Your task to perform on an android device: Open accessibility settings Image 0: 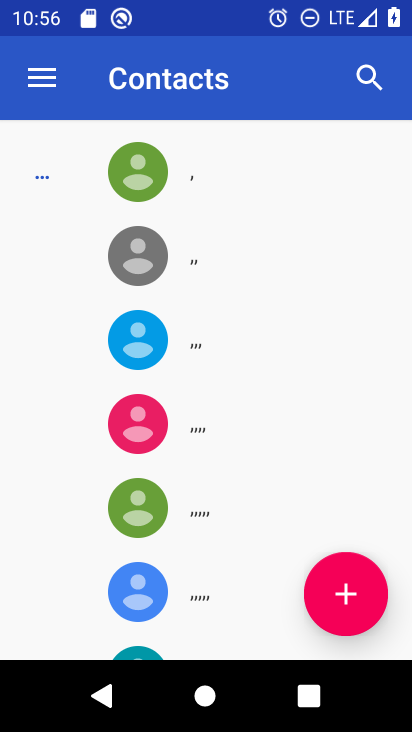
Step 0: press home button
Your task to perform on an android device: Open accessibility settings Image 1: 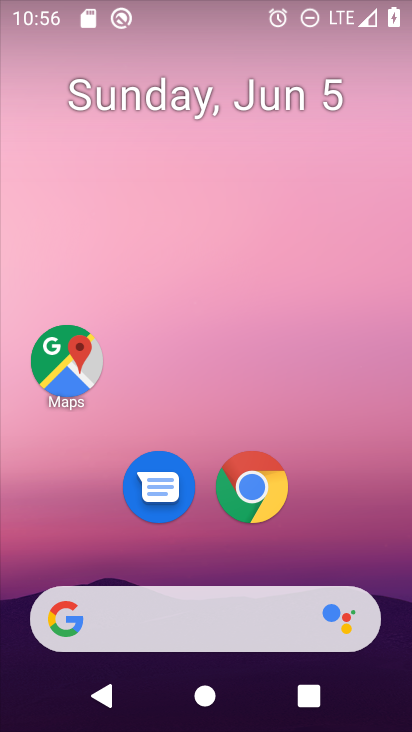
Step 1: drag from (198, 486) to (208, 199)
Your task to perform on an android device: Open accessibility settings Image 2: 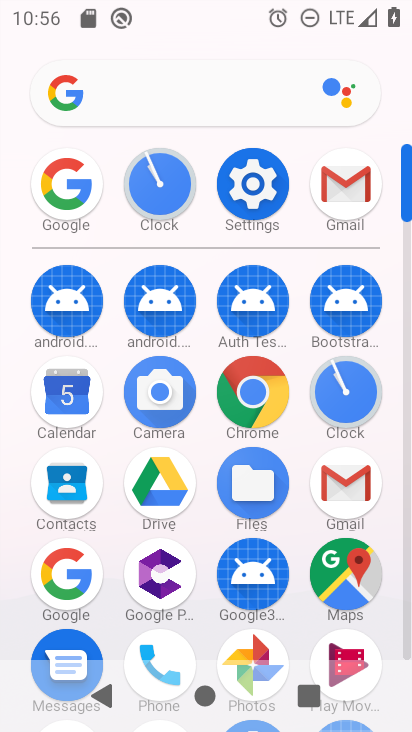
Step 2: click (246, 163)
Your task to perform on an android device: Open accessibility settings Image 3: 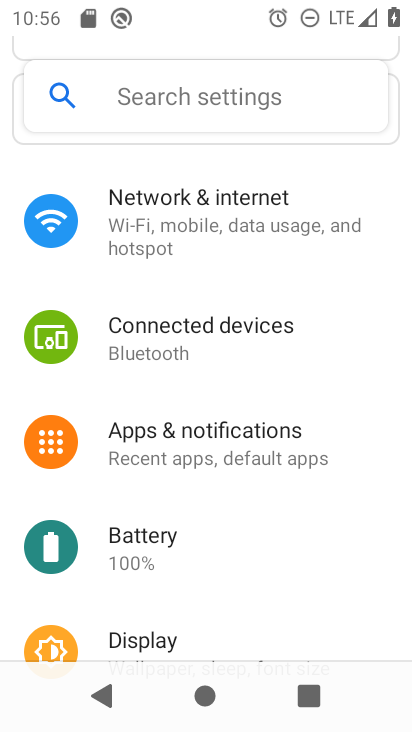
Step 3: drag from (279, 565) to (302, 211)
Your task to perform on an android device: Open accessibility settings Image 4: 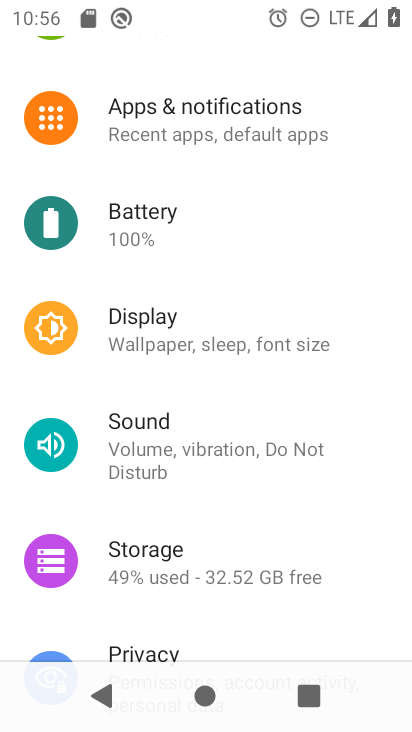
Step 4: drag from (239, 542) to (240, 259)
Your task to perform on an android device: Open accessibility settings Image 5: 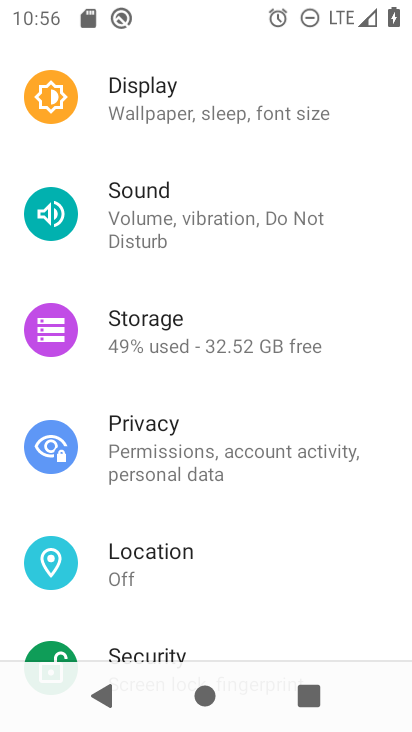
Step 5: drag from (211, 595) to (273, 153)
Your task to perform on an android device: Open accessibility settings Image 6: 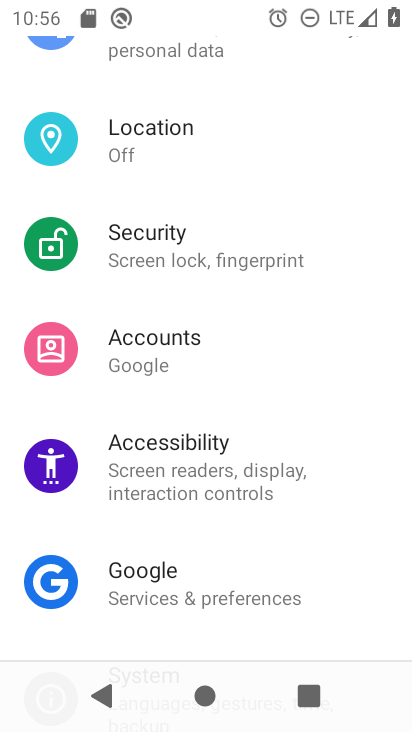
Step 6: click (199, 468)
Your task to perform on an android device: Open accessibility settings Image 7: 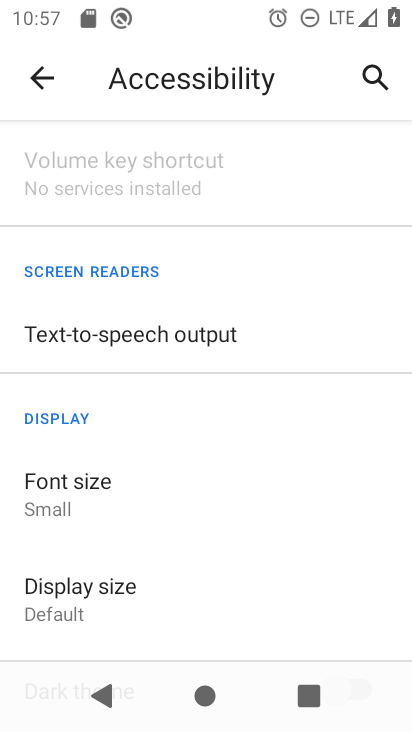
Step 7: task complete